Your task to perform on an android device: Go to sound settings Image 0: 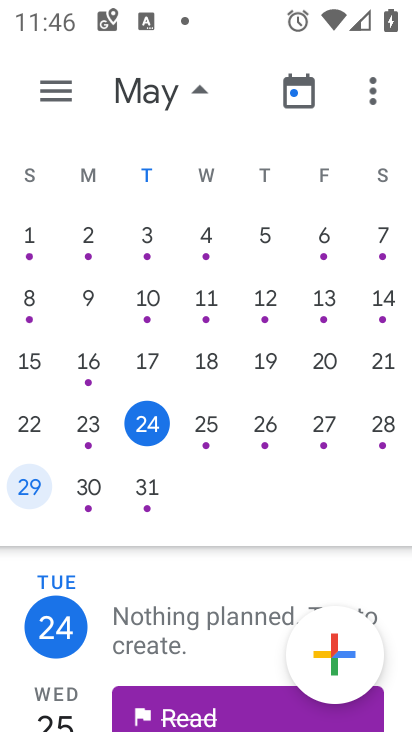
Step 0: press home button
Your task to perform on an android device: Go to sound settings Image 1: 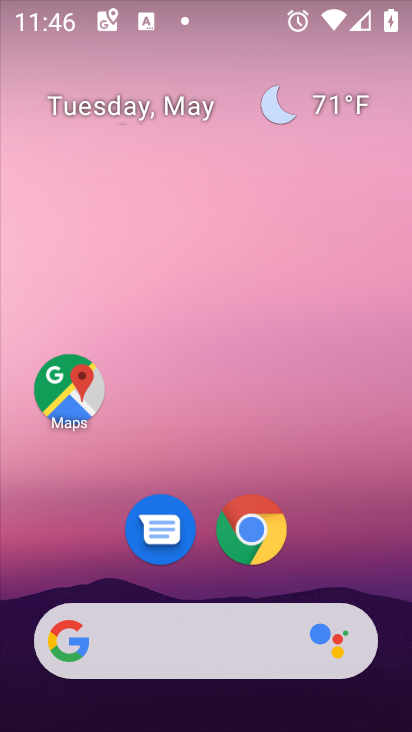
Step 1: drag from (192, 565) to (242, 26)
Your task to perform on an android device: Go to sound settings Image 2: 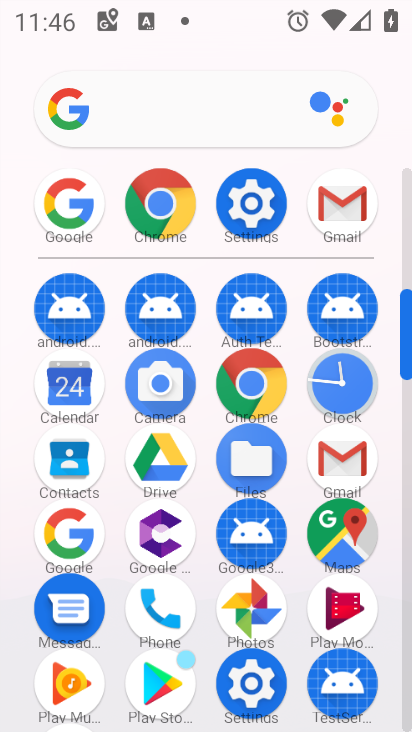
Step 2: click (242, 203)
Your task to perform on an android device: Go to sound settings Image 3: 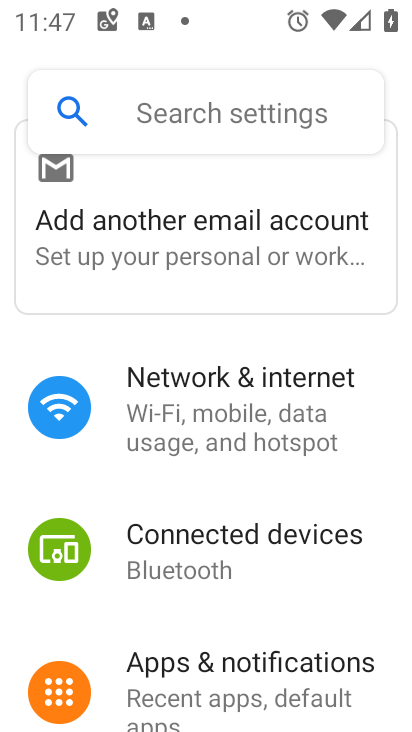
Step 3: drag from (191, 554) to (191, 301)
Your task to perform on an android device: Go to sound settings Image 4: 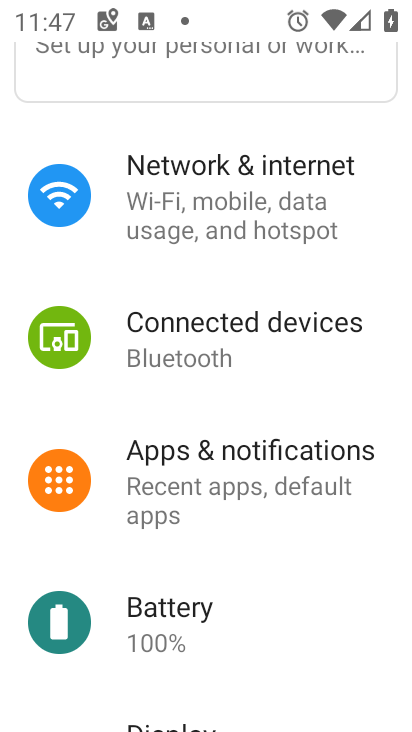
Step 4: drag from (205, 578) to (196, 326)
Your task to perform on an android device: Go to sound settings Image 5: 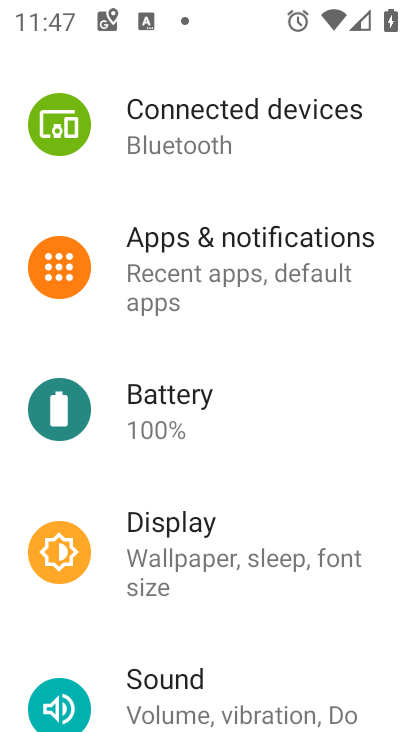
Step 5: drag from (211, 616) to (195, 444)
Your task to perform on an android device: Go to sound settings Image 6: 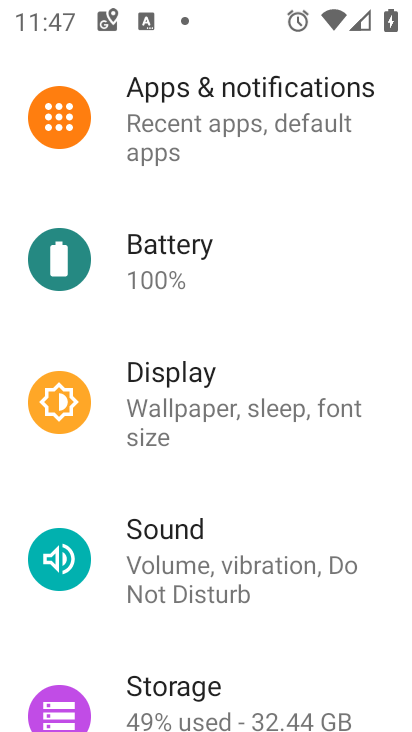
Step 6: click (211, 573)
Your task to perform on an android device: Go to sound settings Image 7: 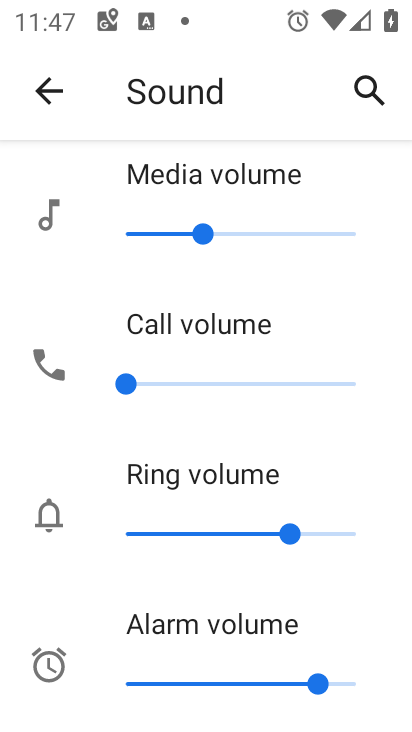
Step 7: task complete